Your task to perform on an android device: star an email in the gmail app Image 0: 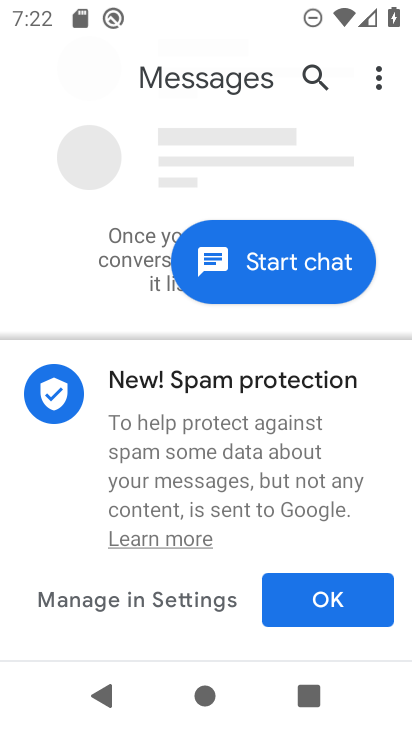
Step 0: press home button
Your task to perform on an android device: star an email in the gmail app Image 1: 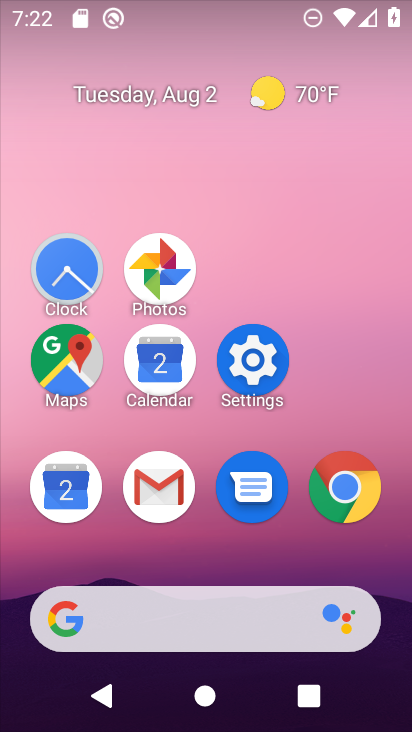
Step 1: click (166, 482)
Your task to perform on an android device: star an email in the gmail app Image 2: 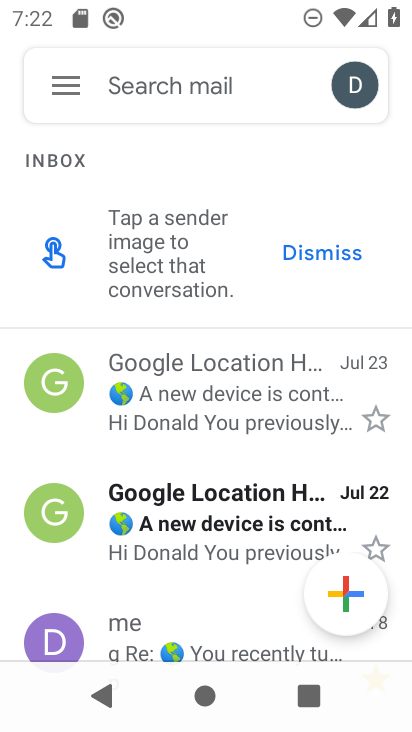
Step 2: click (381, 417)
Your task to perform on an android device: star an email in the gmail app Image 3: 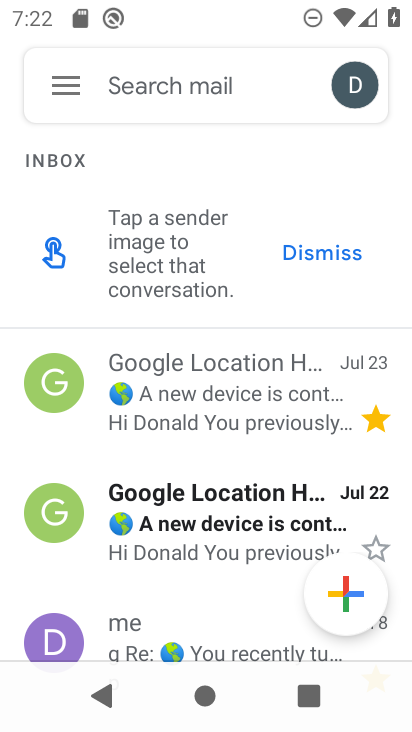
Step 3: task complete